Your task to perform on an android device: change the upload size in google photos Image 0: 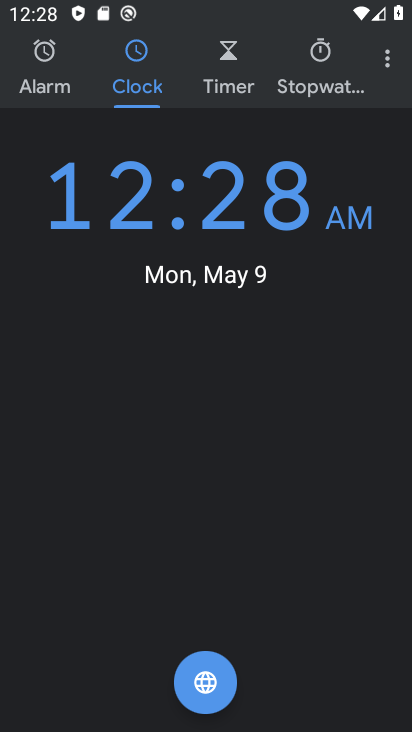
Step 0: press home button
Your task to perform on an android device: change the upload size in google photos Image 1: 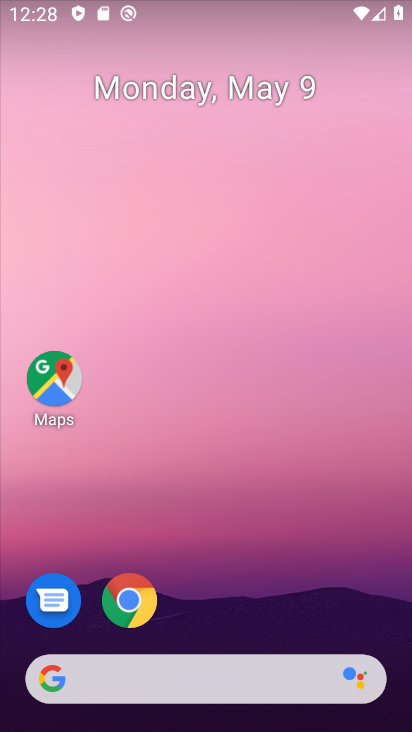
Step 1: drag from (244, 547) to (261, 374)
Your task to perform on an android device: change the upload size in google photos Image 2: 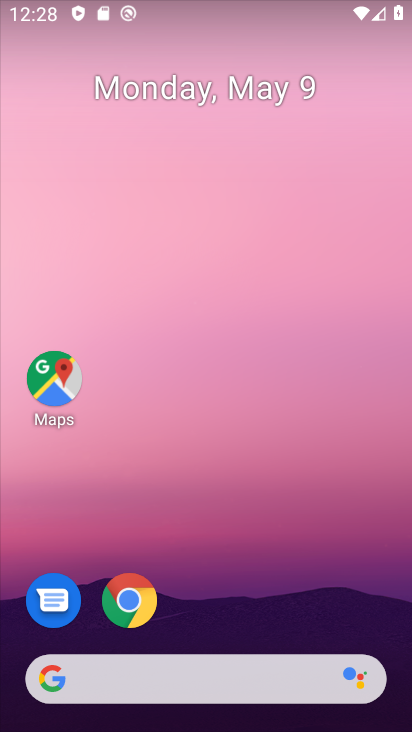
Step 2: drag from (290, 611) to (300, 9)
Your task to perform on an android device: change the upload size in google photos Image 3: 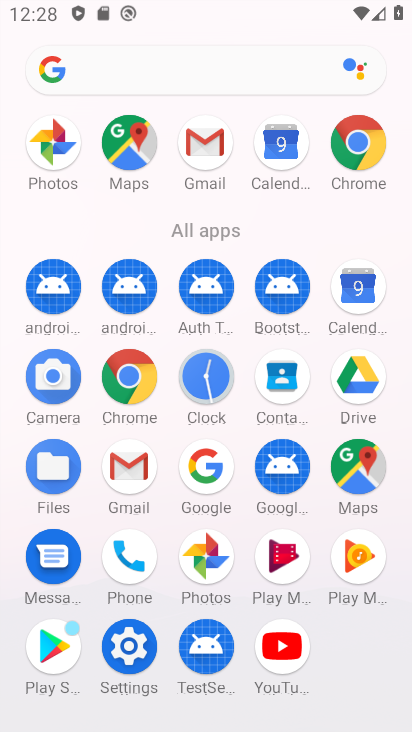
Step 3: click (208, 545)
Your task to perform on an android device: change the upload size in google photos Image 4: 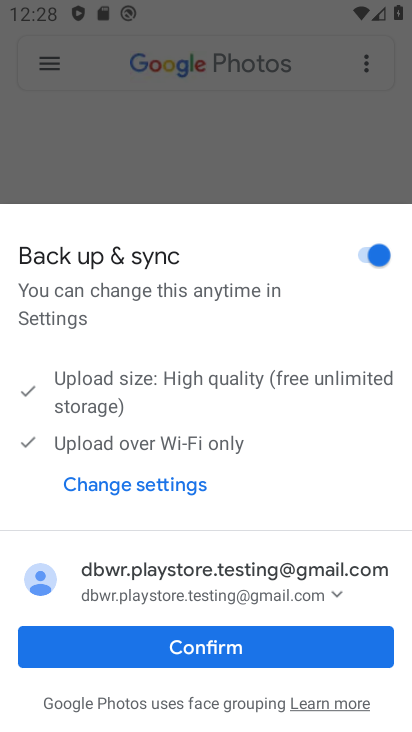
Step 4: click (173, 648)
Your task to perform on an android device: change the upload size in google photos Image 5: 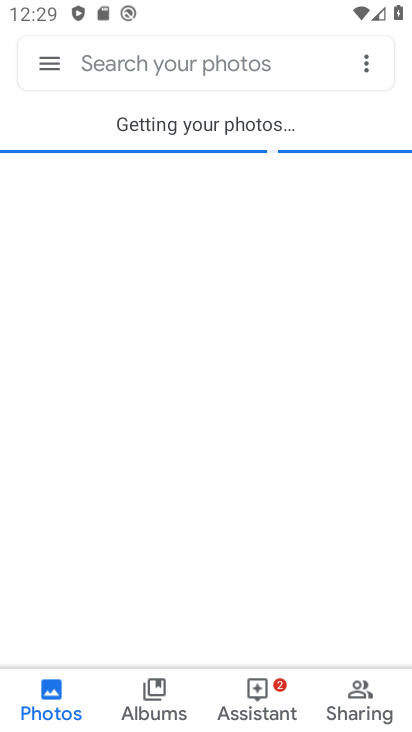
Step 5: click (38, 53)
Your task to perform on an android device: change the upload size in google photos Image 6: 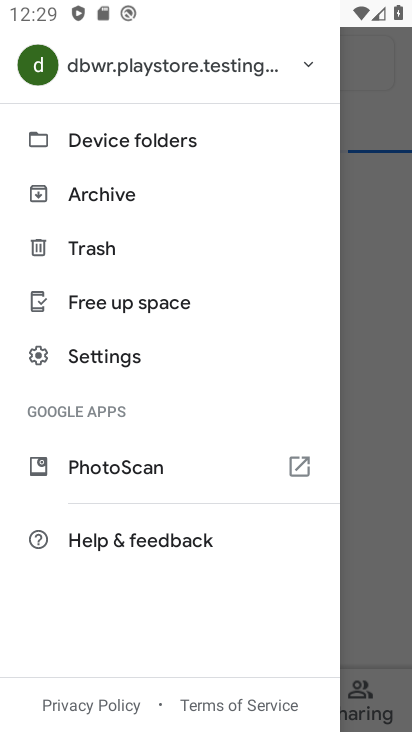
Step 6: click (153, 366)
Your task to perform on an android device: change the upload size in google photos Image 7: 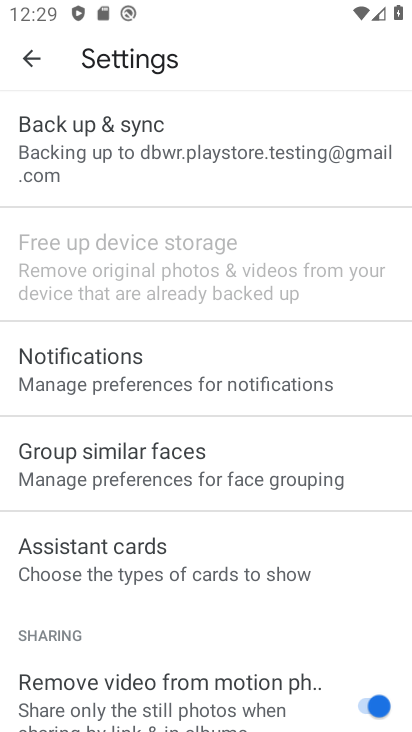
Step 7: drag from (192, 596) to (208, 340)
Your task to perform on an android device: change the upload size in google photos Image 8: 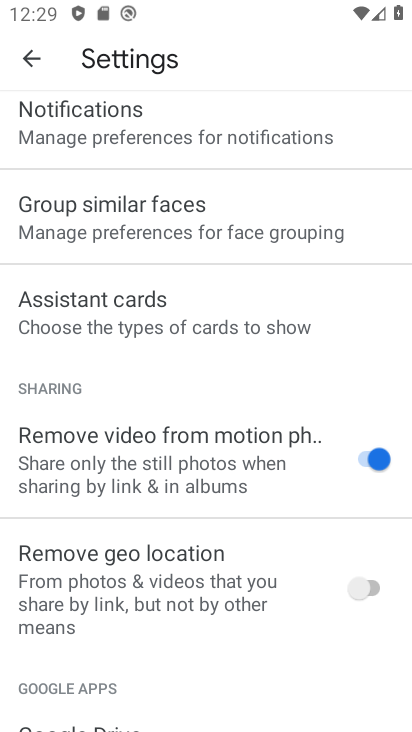
Step 8: drag from (234, 432) to (260, 334)
Your task to perform on an android device: change the upload size in google photos Image 9: 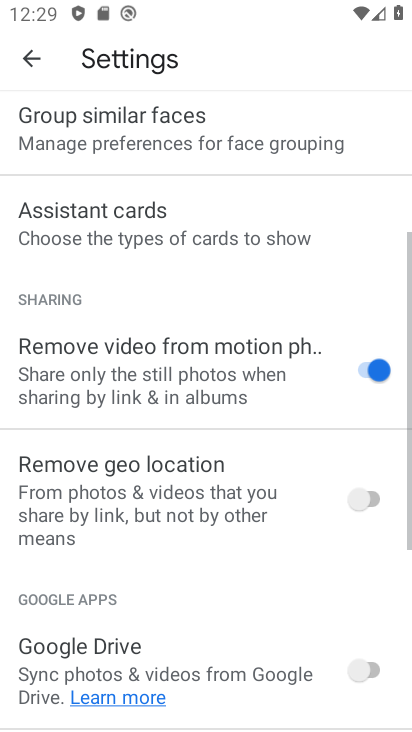
Step 9: drag from (269, 287) to (263, 617)
Your task to perform on an android device: change the upload size in google photos Image 10: 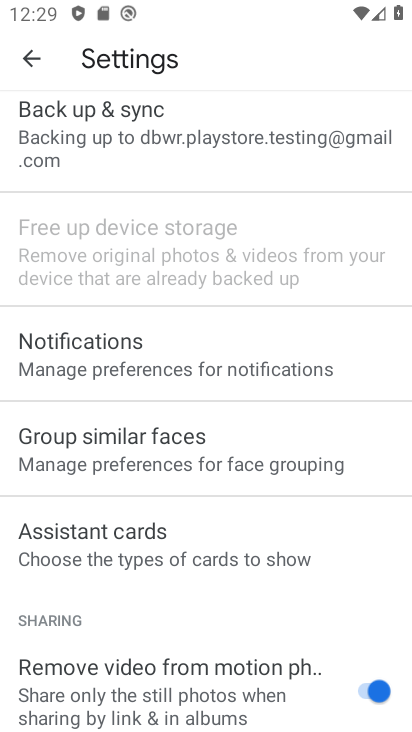
Step 10: drag from (267, 221) to (270, 513)
Your task to perform on an android device: change the upload size in google photos Image 11: 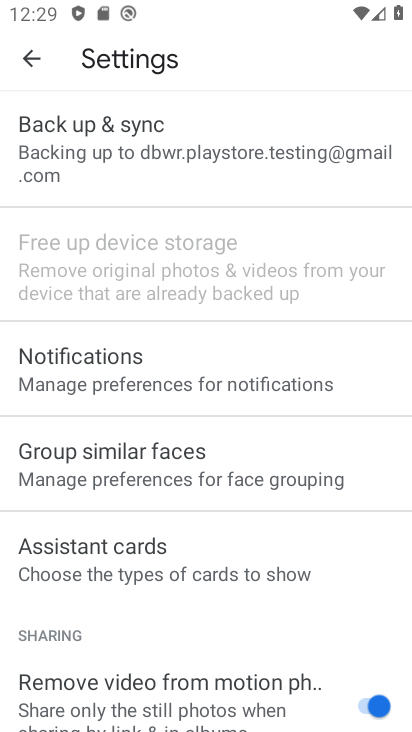
Step 11: click (205, 136)
Your task to perform on an android device: change the upload size in google photos Image 12: 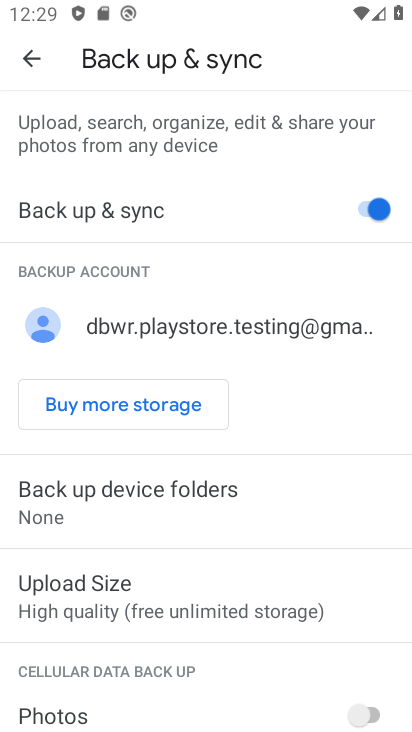
Step 12: click (201, 584)
Your task to perform on an android device: change the upload size in google photos Image 13: 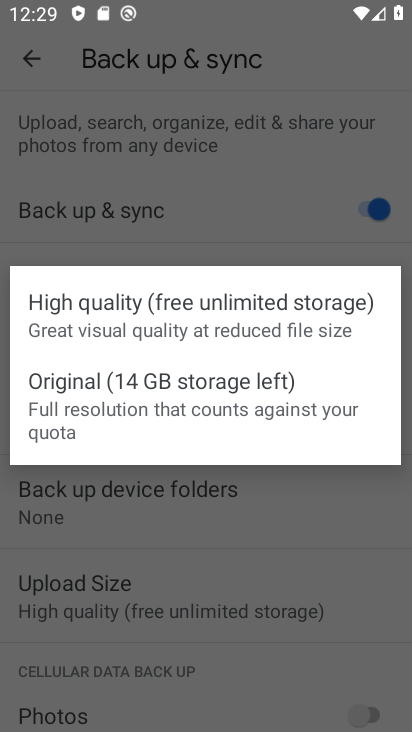
Step 13: click (198, 387)
Your task to perform on an android device: change the upload size in google photos Image 14: 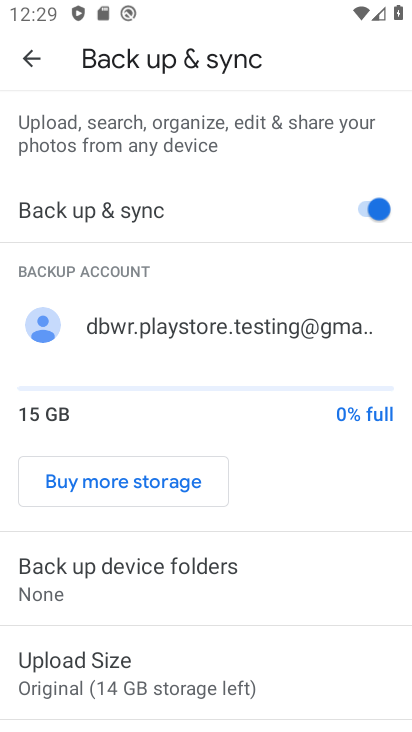
Step 14: task complete